Your task to perform on an android device: Open Wikipedia Image 0: 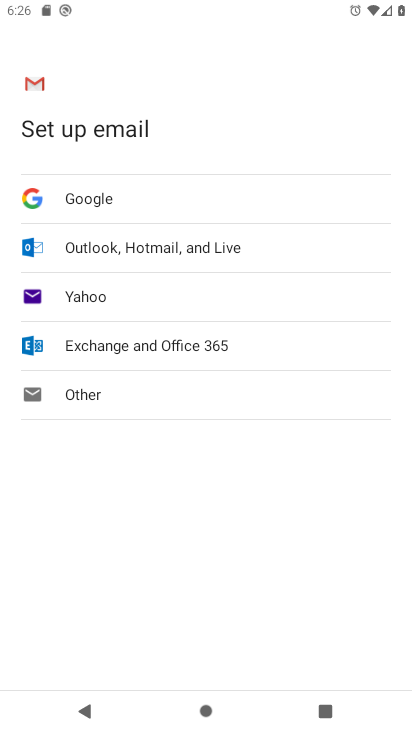
Step 0: press home button
Your task to perform on an android device: Open Wikipedia Image 1: 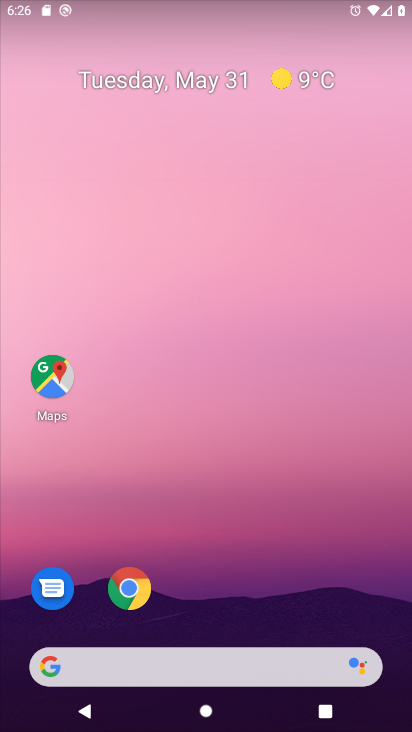
Step 1: drag from (218, 617) to (228, 188)
Your task to perform on an android device: Open Wikipedia Image 2: 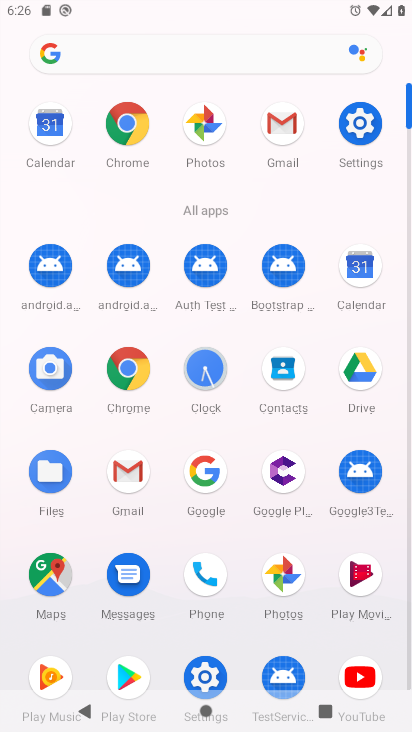
Step 2: click (124, 158)
Your task to perform on an android device: Open Wikipedia Image 3: 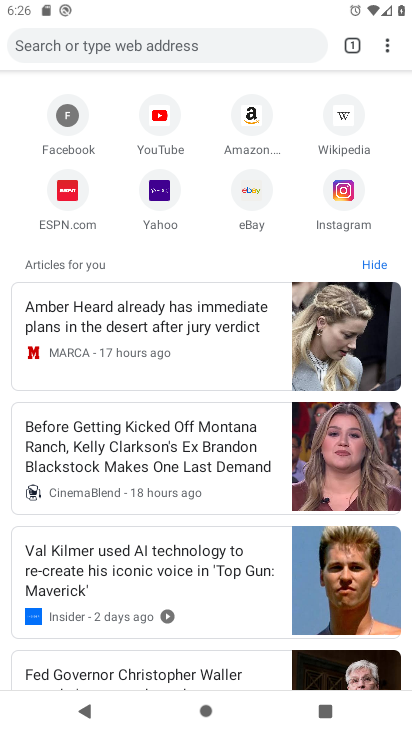
Step 3: click (341, 152)
Your task to perform on an android device: Open Wikipedia Image 4: 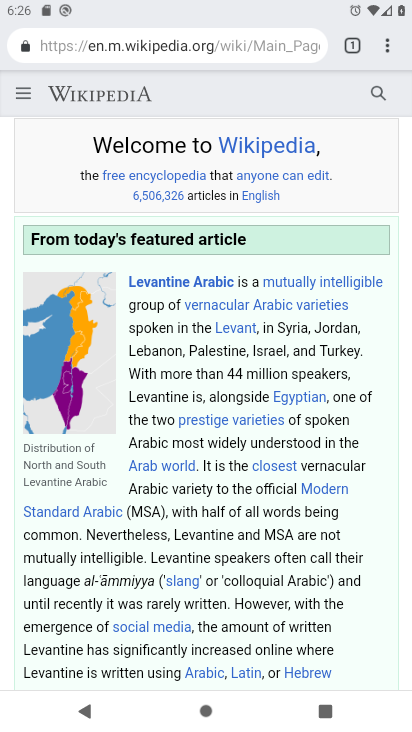
Step 4: task complete